Your task to perform on an android device: Search for a new eyeshadow Image 0: 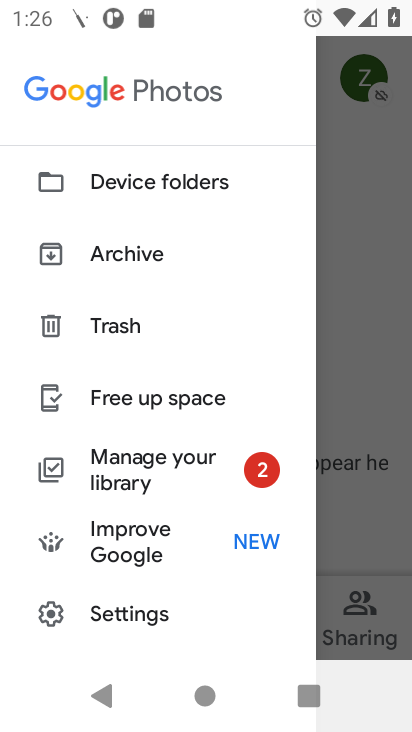
Step 0: press home button
Your task to perform on an android device: Search for a new eyeshadow Image 1: 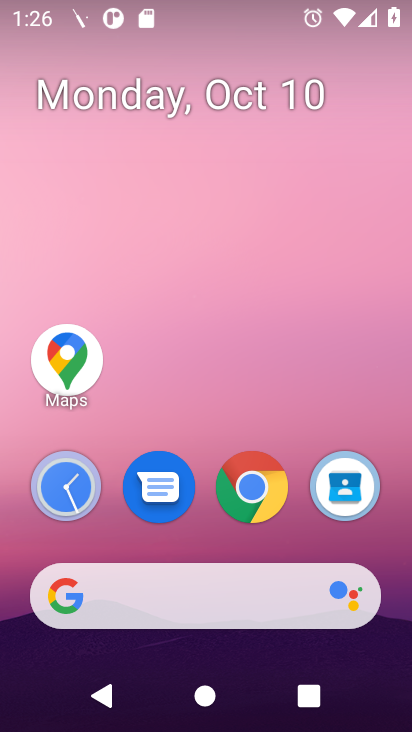
Step 1: click (252, 500)
Your task to perform on an android device: Search for a new eyeshadow Image 2: 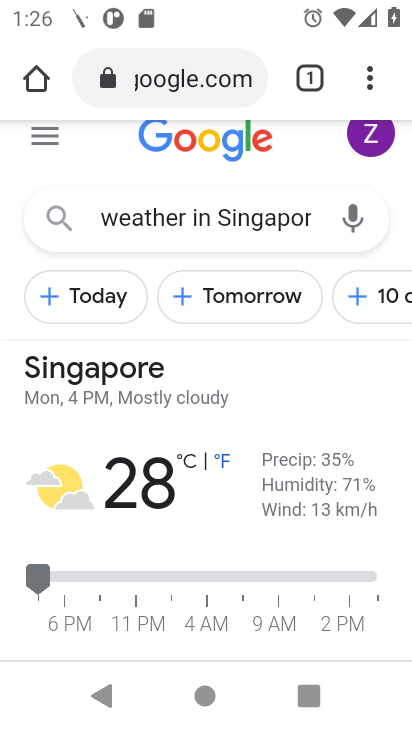
Step 2: click (212, 73)
Your task to perform on an android device: Search for a new eyeshadow Image 3: 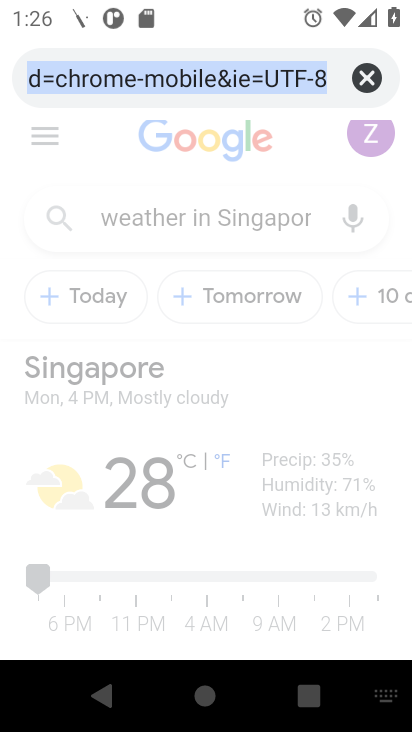
Step 3: type "new eyeshadow"
Your task to perform on an android device: Search for a new eyeshadow Image 4: 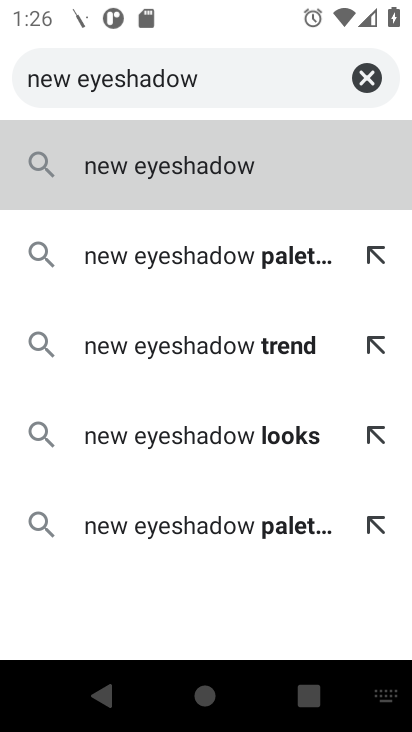
Step 4: press enter
Your task to perform on an android device: Search for a new eyeshadow Image 5: 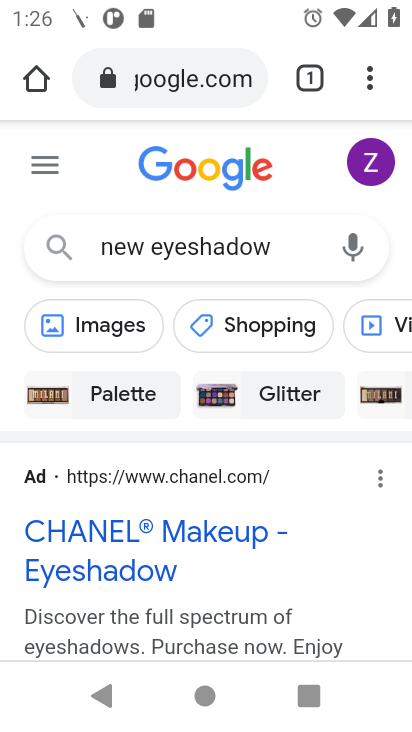
Step 5: task complete